Your task to perform on an android device: open chrome and create a bookmark for the current page Image 0: 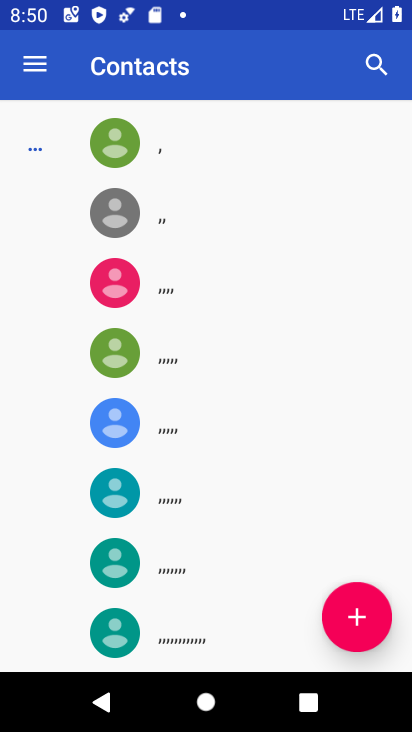
Step 0: press home button
Your task to perform on an android device: open chrome and create a bookmark for the current page Image 1: 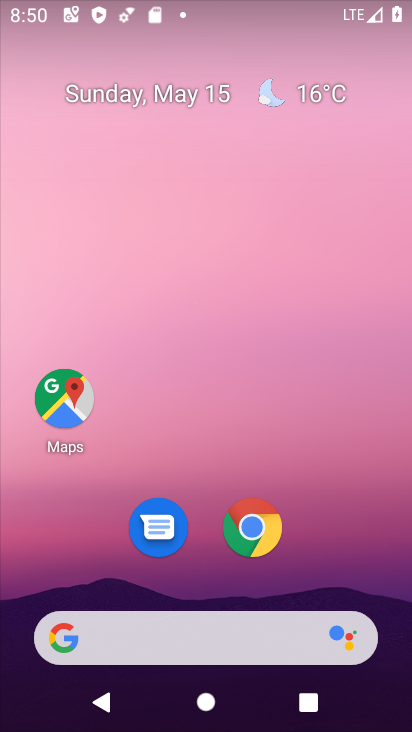
Step 1: click (257, 531)
Your task to perform on an android device: open chrome and create a bookmark for the current page Image 2: 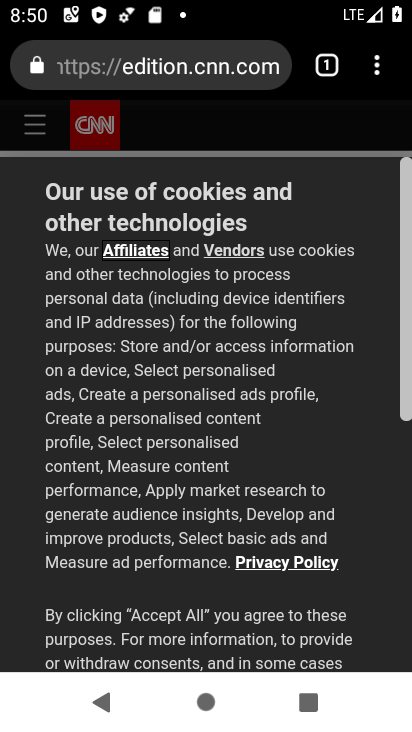
Step 2: click (376, 69)
Your task to perform on an android device: open chrome and create a bookmark for the current page Image 3: 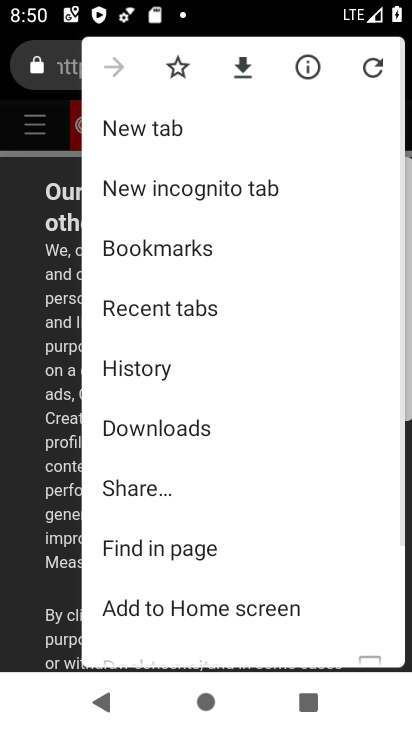
Step 3: click (177, 64)
Your task to perform on an android device: open chrome and create a bookmark for the current page Image 4: 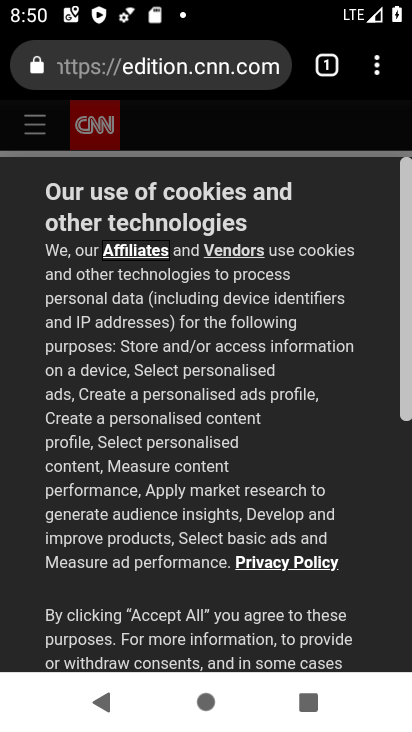
Step 4: task complete